Your task to perform on an android device: turn off location history Image 0: 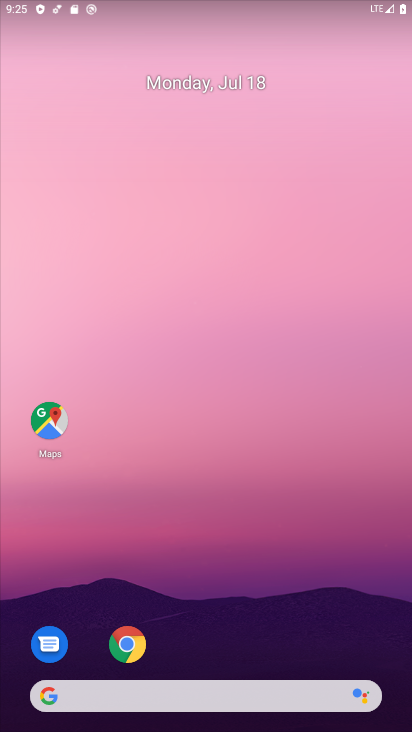
Step 0: drag from (346, 622) to (363, 152)
Your task to perform on an android device: turn off location history Image 1: 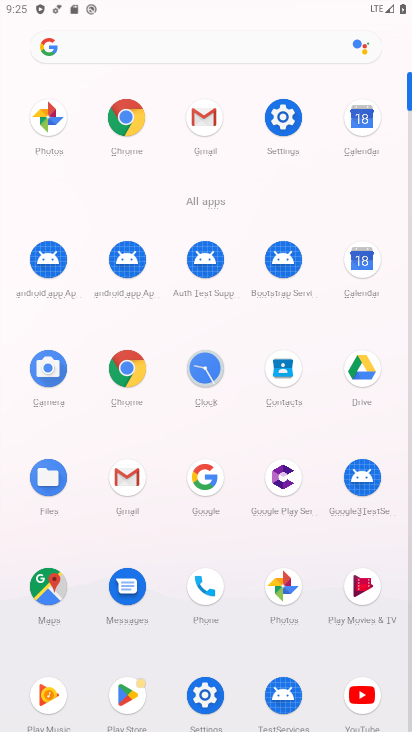
Step 1: click (292, 123)
Your task to perform on an android device: turn off location history Image 2: 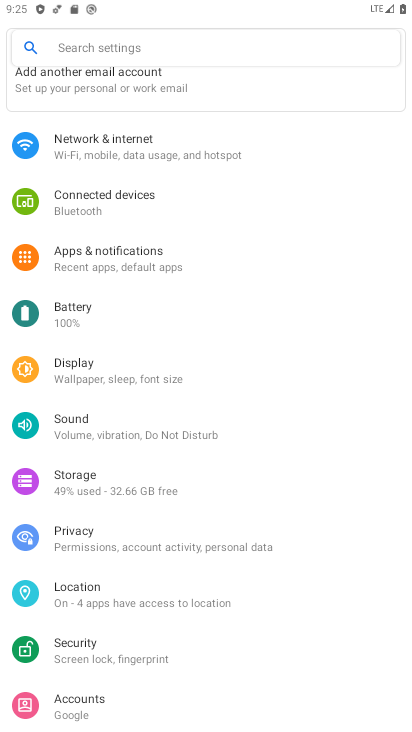
Step 2: drag from (342, 482) to (353, 432)
Your task to perform on an android device: turn off location history Image 3: 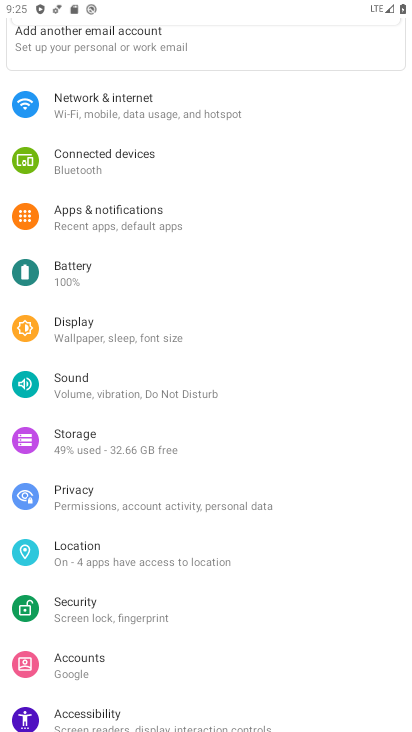
Step 3: drag from (349, 543) to (352, 457)
Your task to perform on an android device: turn off location history Image 4: 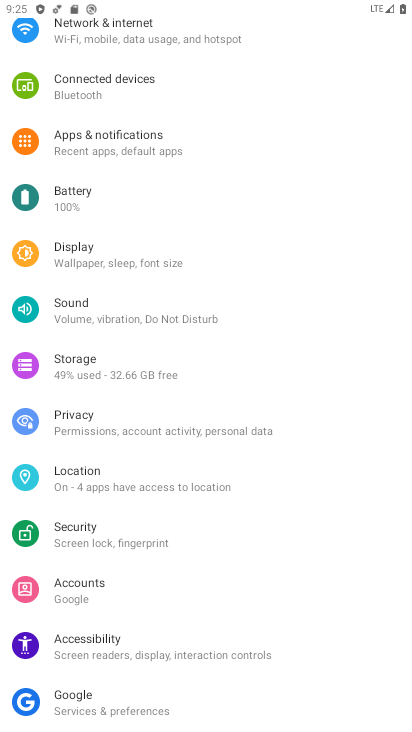
Step 4: drag from (332, 536) to (331, 453)
Your task to perform on an android device: turn off location history Image 5: 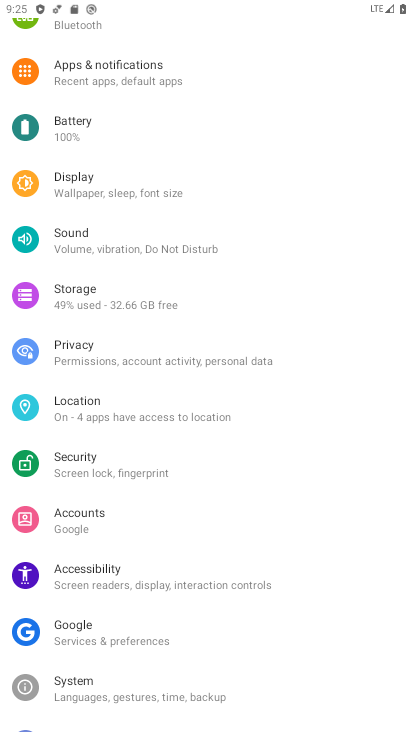
Step 5: drag from (324, 550) to (327, 474)
Your task to perform on an android device: turn off location history Image 6: 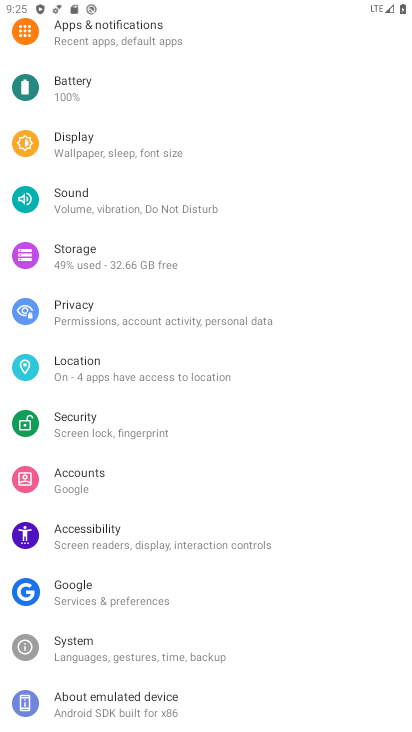
Step 6: drag from (324, 573) to (331, 470)
Your task to perform on an android device: turn off location history Image 7: 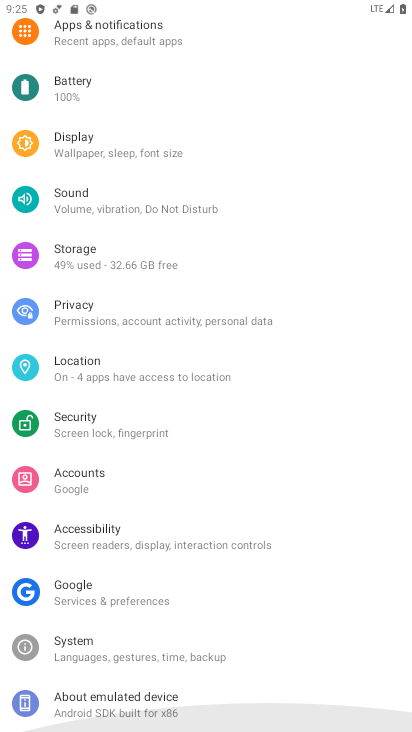
Step 7: click (254, 375)
Your task to perform on an android device: turn off location history Image 8: 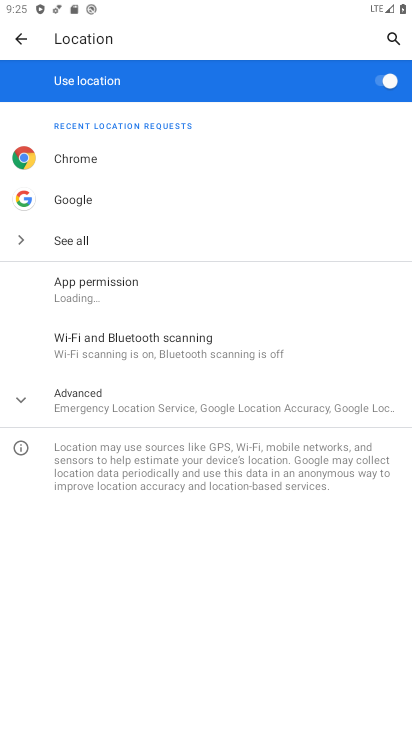
Step 8: click (248, 401)
Your task to perform on an android device: turn off location history Image 9: 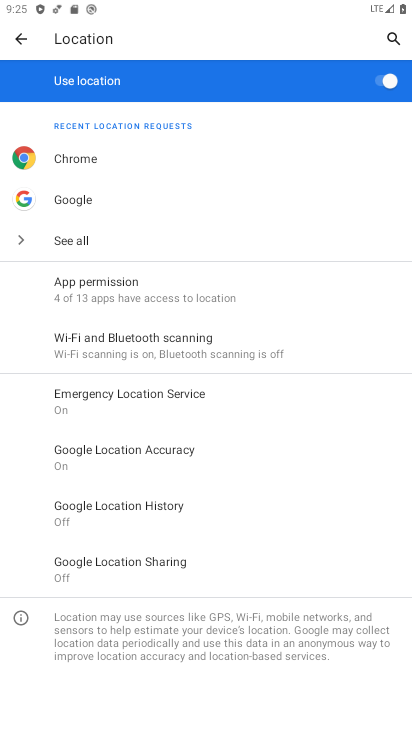
Step 9: drag from (278, 532) to (284, 409)
Your task to perform on an android device: turn off location history Image 10: 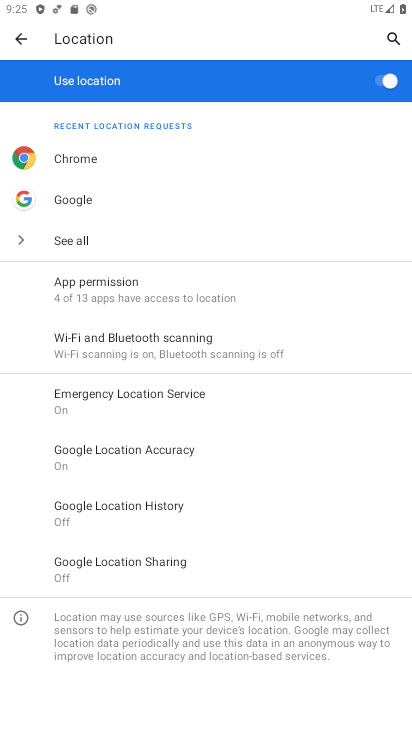
Step 10: click (167, 512)
Your task to perform on an android device: turn off location history Image 11: 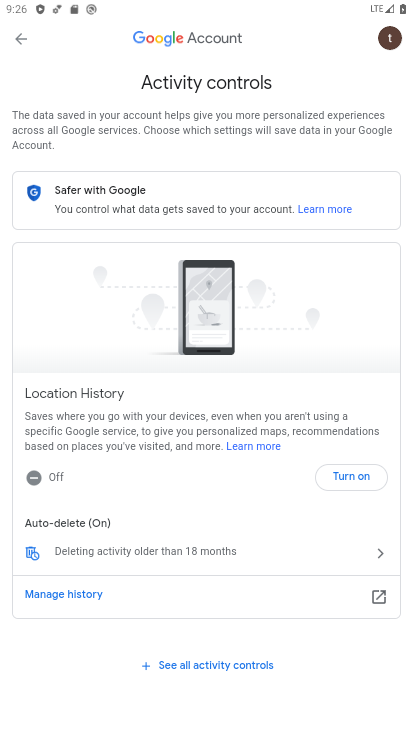
Step 11: task complete